Your task to perform on an android device: check out phone information Image 0: 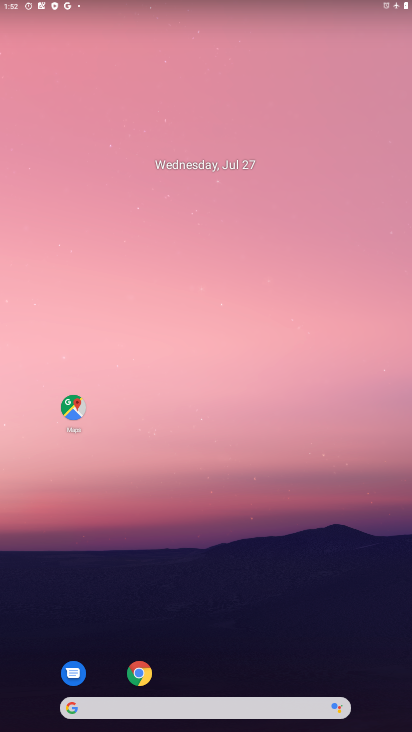
Step 0: drag from (225, 660) to (274, 81)
Your task to perform on an android device: check out phone information Image 1: 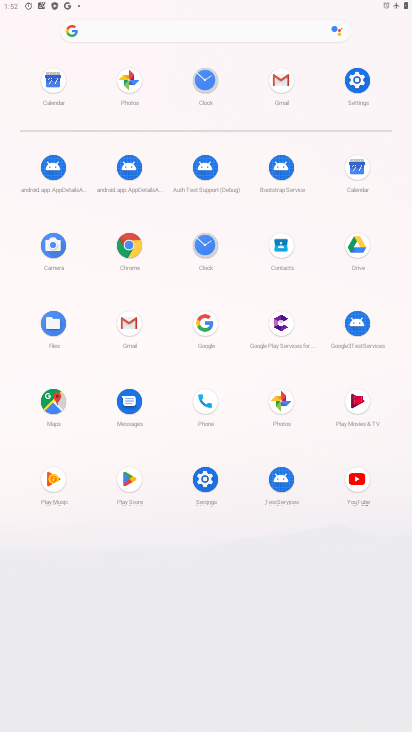
Step 1: click (368, 89)
Your task to perform on an android device: check out phone information Image 2: 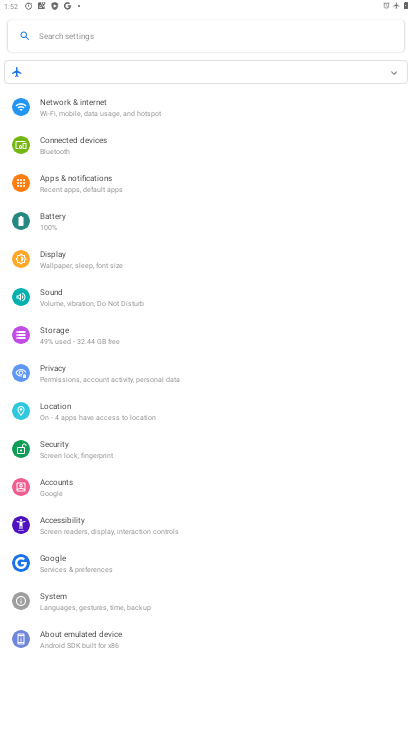
Step 2: click (71, 640)
Your task to perform on an android device: check out phone information Image 3: 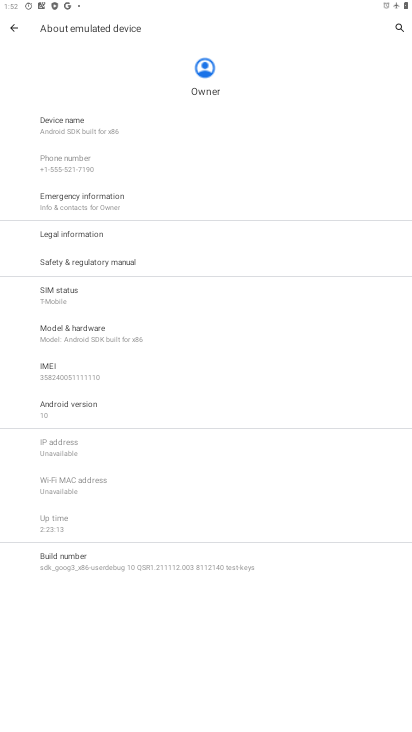
Step 3: task complete